Your task to perform on an android device: Open display settings Image 0: 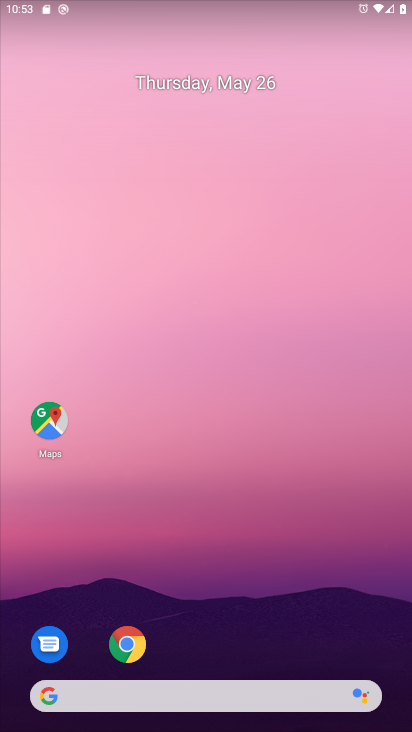
Step 0: drag from (332, 642) to (340, 207)
Your task to perform on an android device: Open display settings Image 1: 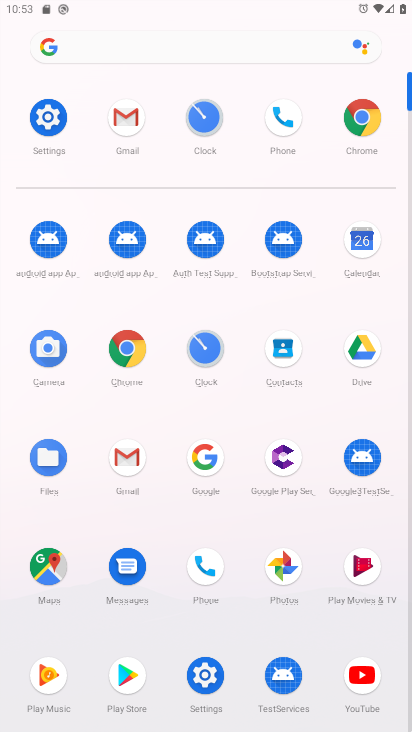
Step 1: click (58, 125)
Your task to perform on an android device: Open display settings Image 2: 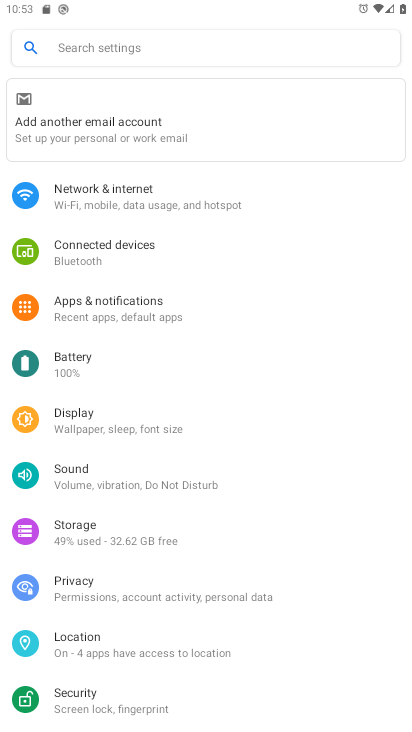
Step 2: drag from (319, 522) to (327, 326)
Your task to perform on an android device: Open display settings Image 3: 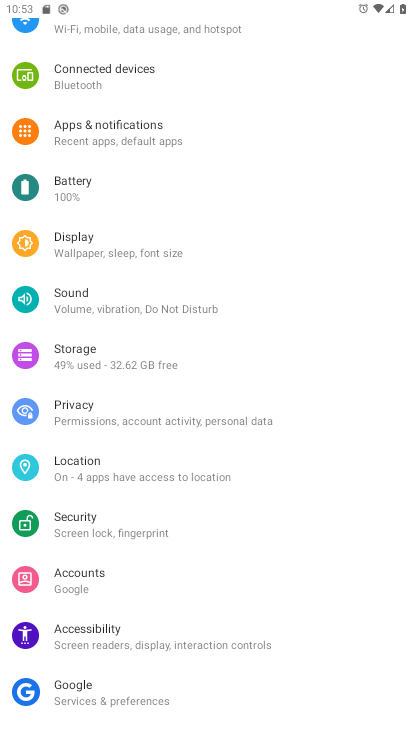
Step 3: drag from (309, 593) to (329, 396)
Your task to perform on an android device: Open display settings Image 4: 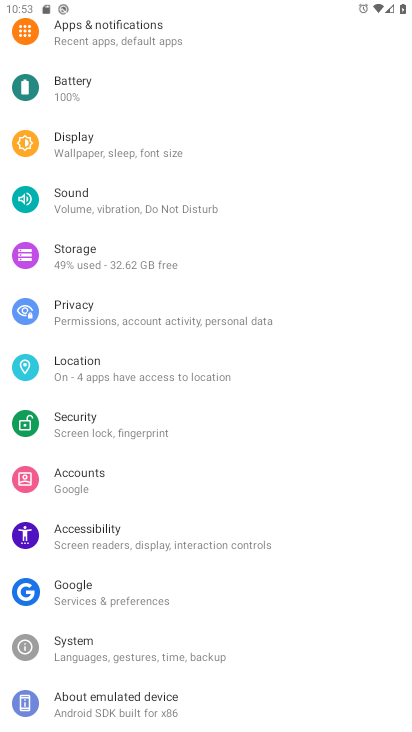
Step 4: drag from (327, 613) to (339, 426)
Your task to perform on an android device: Open display settings Image 5: 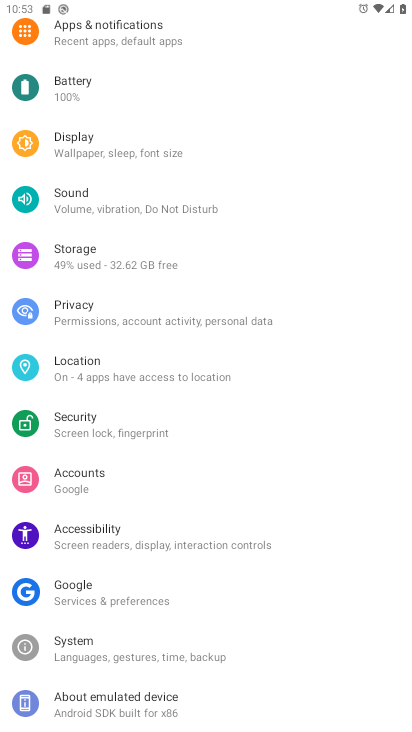
Step 5: drag from (324, 298) to (313, 489)
Your task to perform on an android device: Open display settings Image 6: 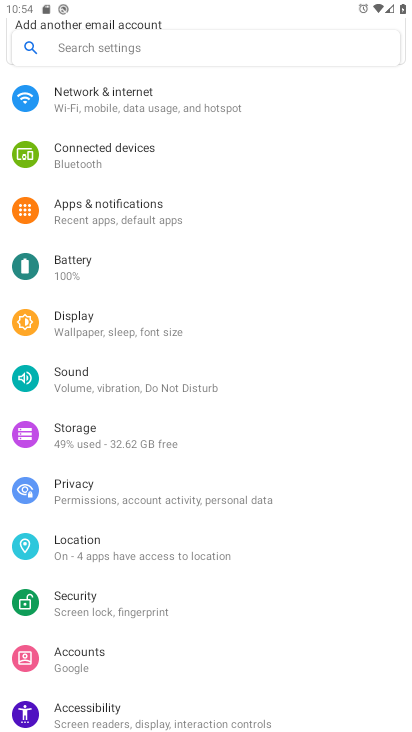
Step 6: drag from (308, 314) to (305, 445)
Your task to perform on an android device: Open display settings Image 7: 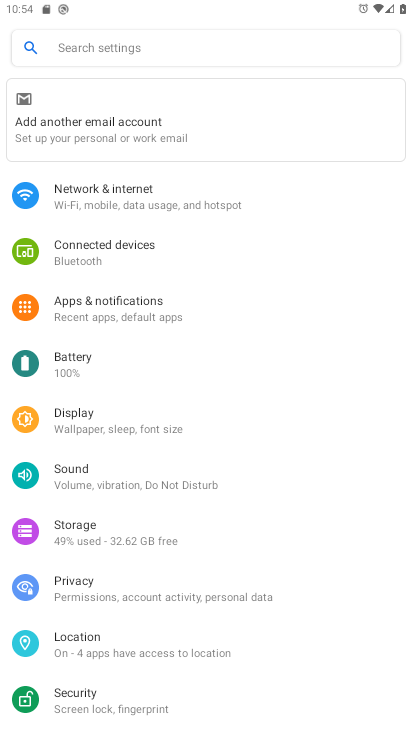
Step 7: drag from (290, 328) to (294, 478)
Your task to perform on an android device: Open display settings Image 8: 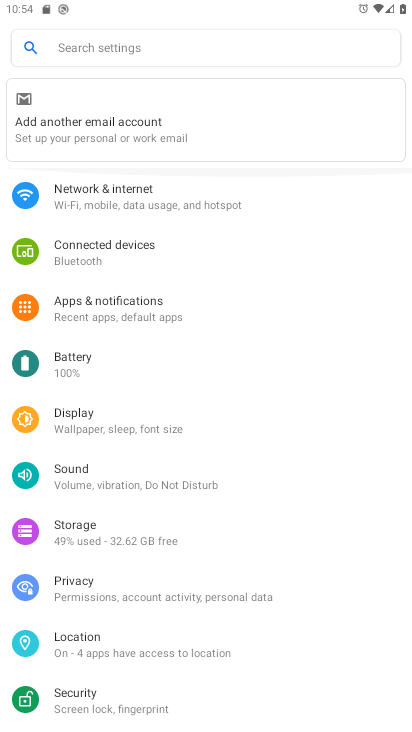
Step 8: click (172, 434)
Your task to perform on an android device: Open display settings Image 9: 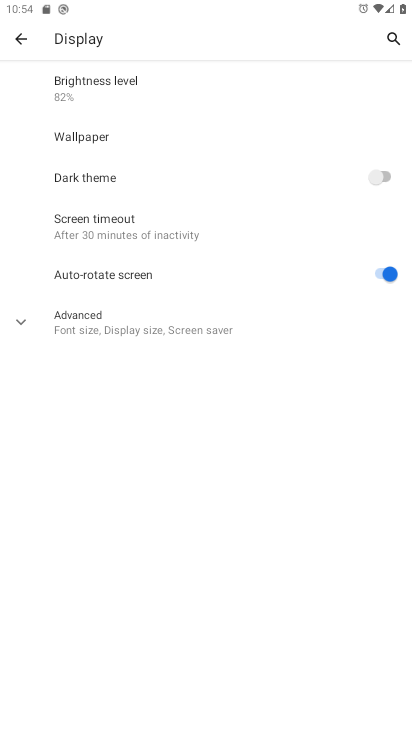
Step 9: click (206, 320)
Your task to perform on an android device: Open display settings Image 10: 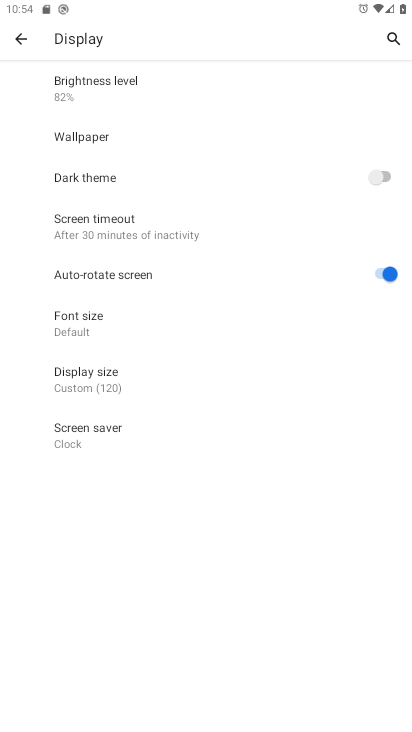
Step 10: task complete